Your task to perform on an android device: remove spam from my inbox in the gmail app Image 0: 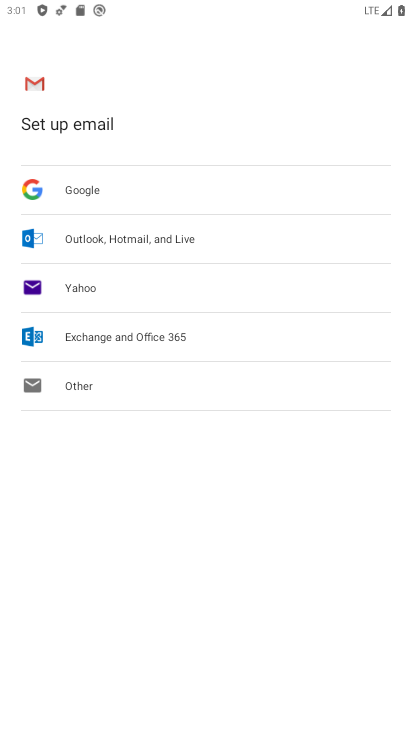
Step 0: press home button
Your task to perform on an android device: remove spam from my inbox in the gmail app Image 1: 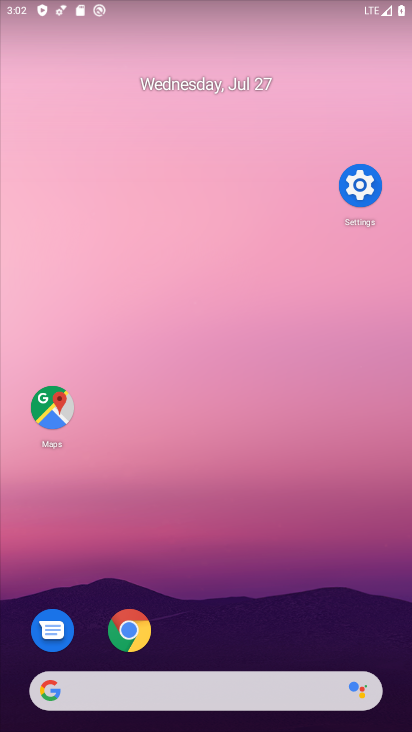
Step 1: drag from (302, 592) to (396, 205)
Your task to perform on an android device: remove spam from my inbox in the gmail app Image 2: 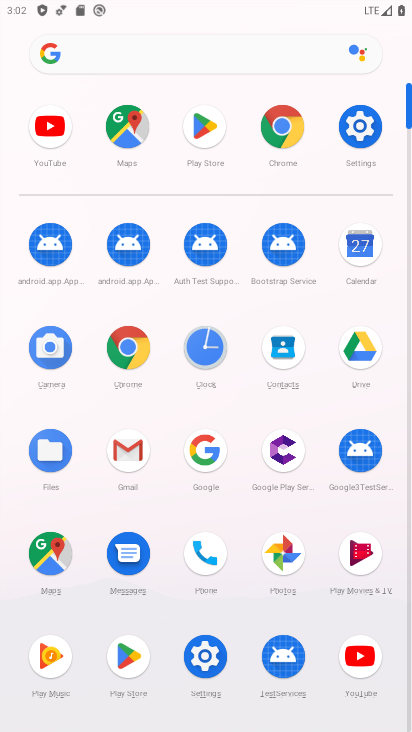
Step 2: click (133, 459)
Your task to perform on an android device: remove spam from my inbox in the gmail app Image 3: 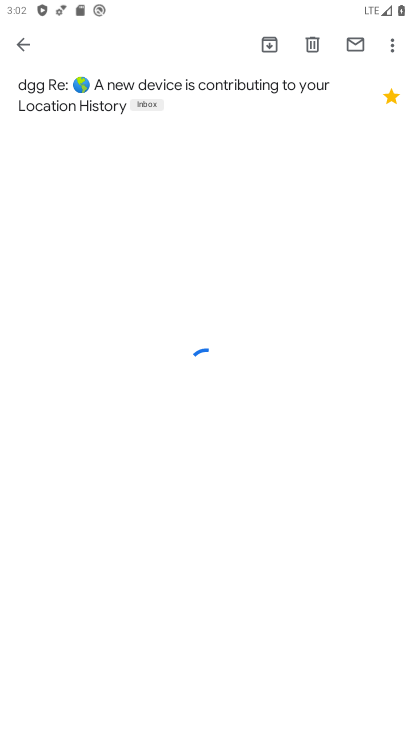
Step 3: click (23, 49)
Your task to perform on an android device: remove spam from my inbox in the gmail app Image 4: 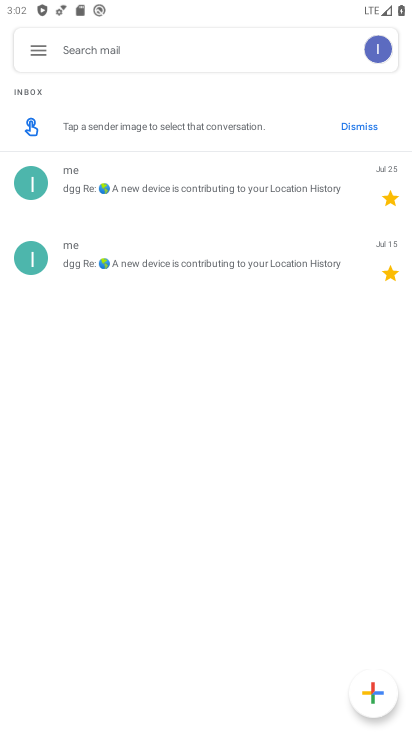
Step 4: click (33, 53)
Your task to perform on an android device: remove spam from my inbox in the gmail app Image 5: 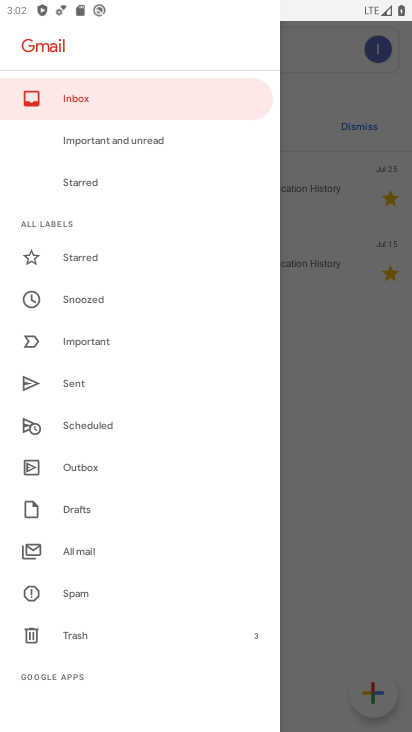
Step 5: click (75, 592)
Your task to perform on an android device: remove spam from my inbox in the gmail app Image 6: 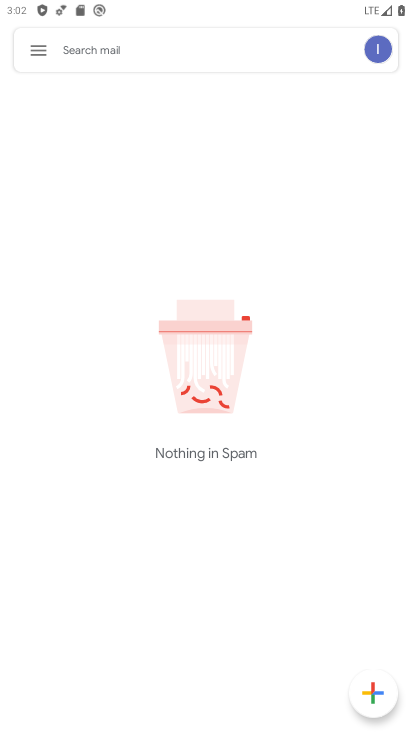
Step 6: task complete